Your task to perform on an android device: star an email in the gmail app Image 0: 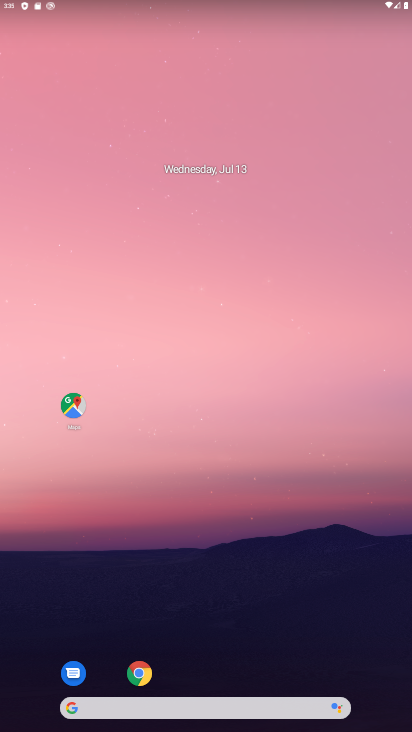
Step 0: press home button
Your task to perform on an android device: star an email in the gmail app Image 1: 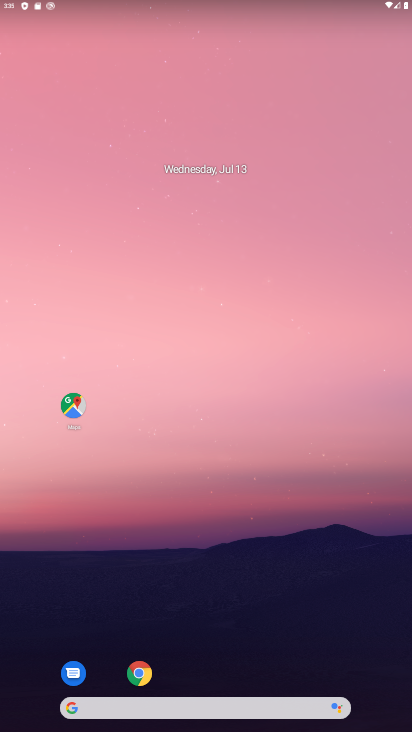
Step 1: drag from (150, 682) to (166, 297)
Your task to perform on an android device: star an email in the gmail app Image 2: 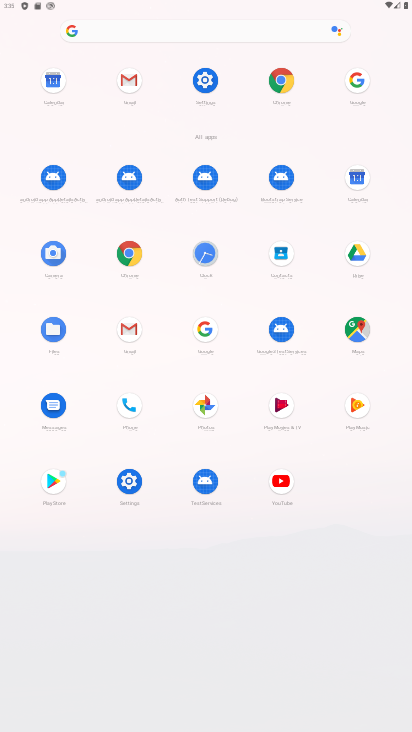
Step 2: click (124, 78)
Your task to perform on an android device: star an email in the gmail app Image 3: 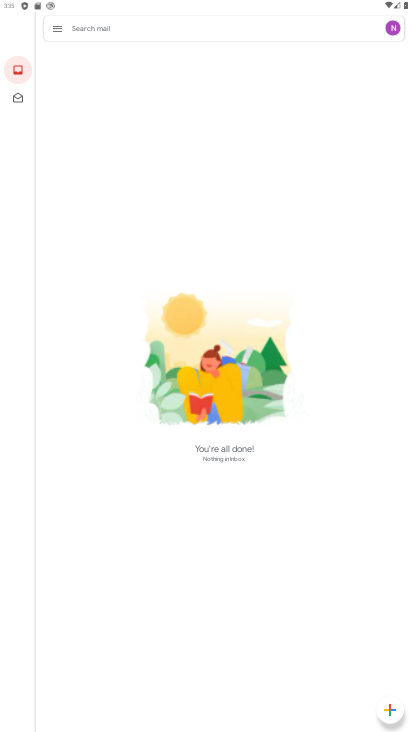
Step 3: task complete